Your task to perform on an android device: open a new tab in the chrome app Image 0: 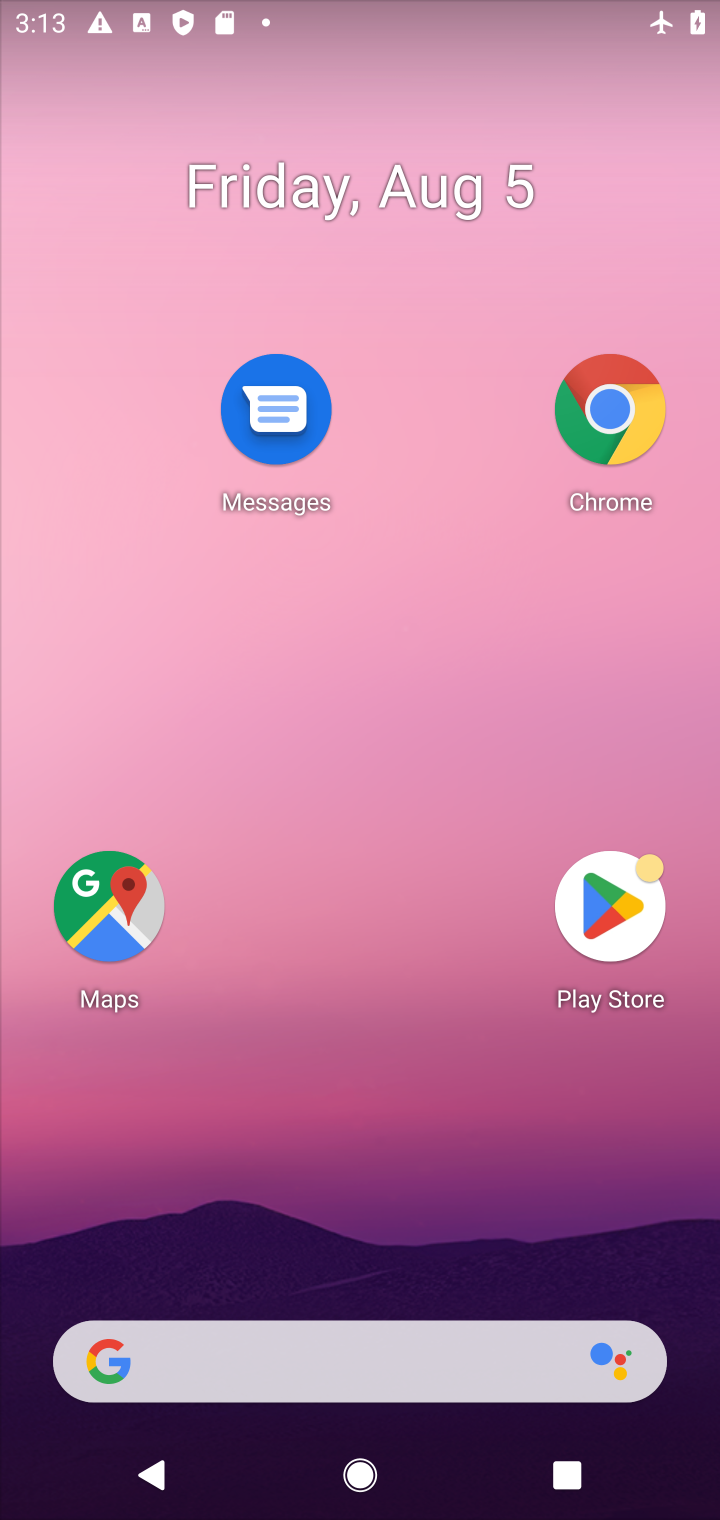
Step 0: click (600, 444)
Your task to perform on an android device: open a new tab in the chrome app Image 1: 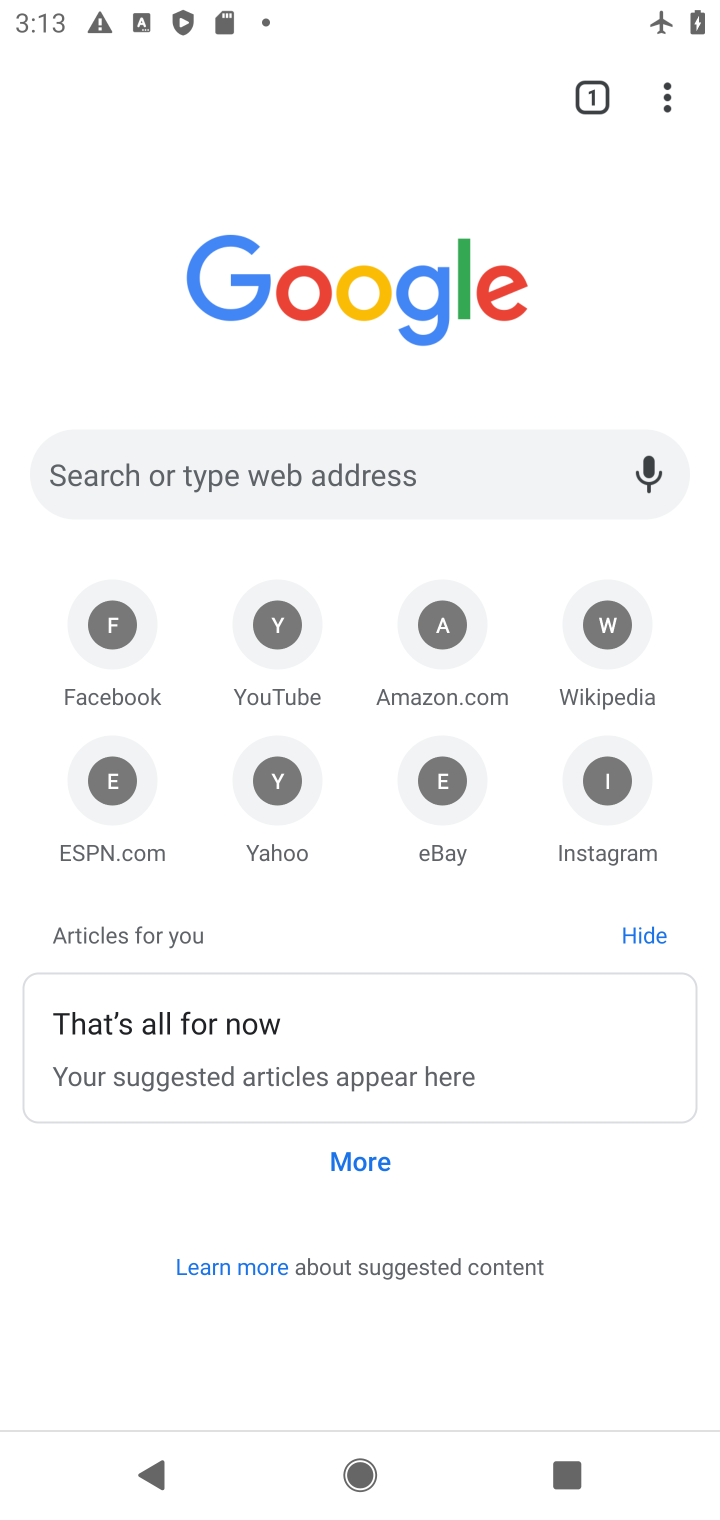
Step 1: click (596, 76)
Your task to perform on an android device: open a new tab in the chrome app Image 2: 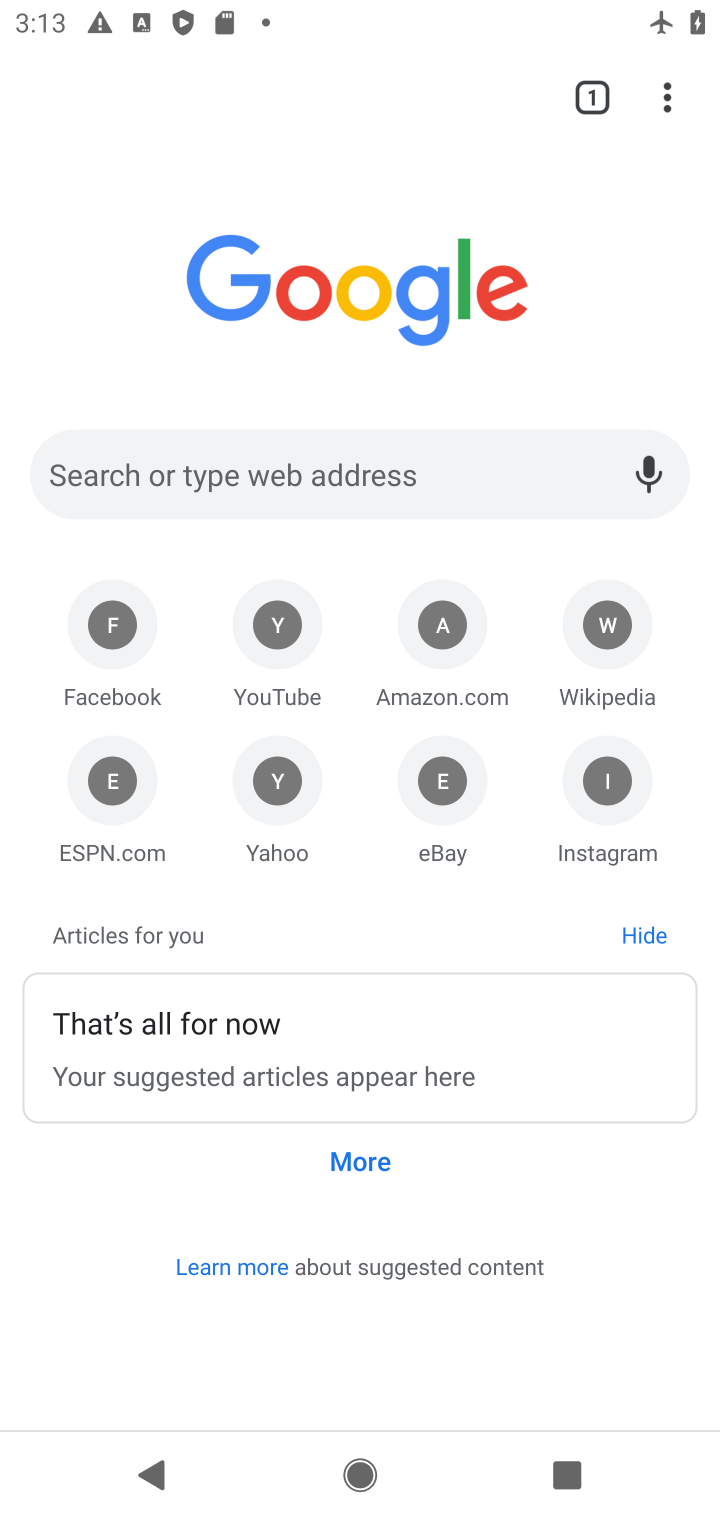
Step 2: task complete